Your task to perform on an android device: allow notifications from all sites in the chrome app Image 0: 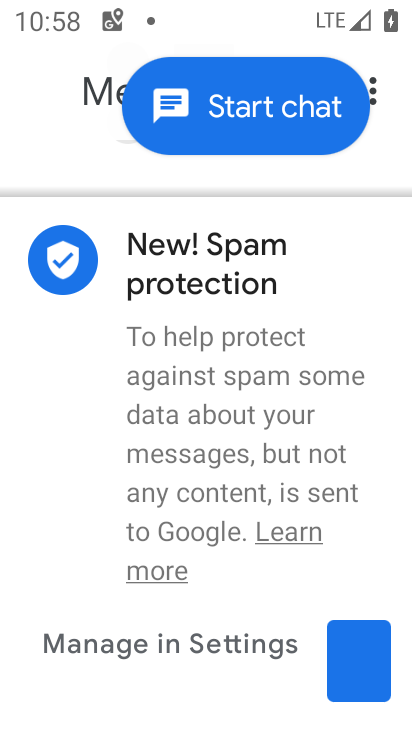
Step 0: press home button
Your task to perform on an android device: allow notifications from all sites in the chrome app Image 1: 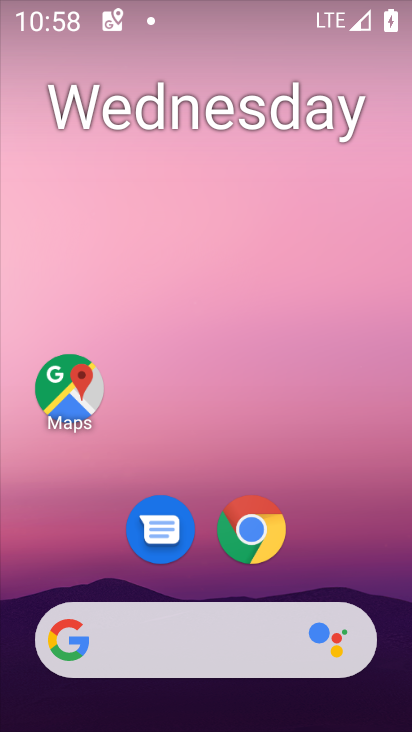
Step 1: click (246, 521)
Your task to perform on an android device: allow notifications from all sites in the chrome app Image 2: 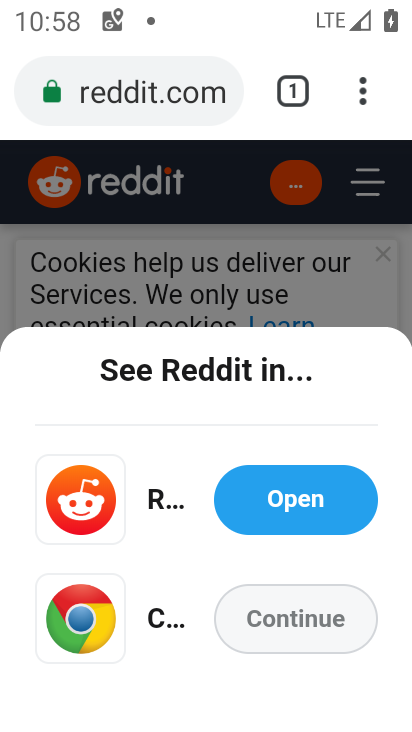
Step 2: click (355, 95)
Your task to perform on an android device: allow notifications from all sites in the chrome app Image 3: 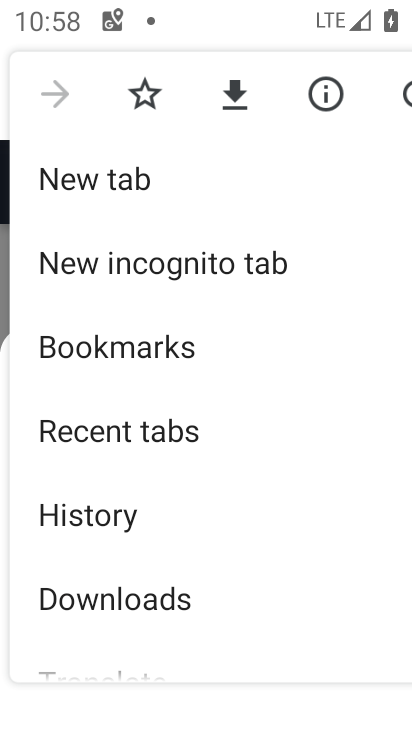
Step 3: drag from (232, 595) to (297, 179)
Your task to perform on an android device: allow notifications from all sites in the chrome app Image 4: 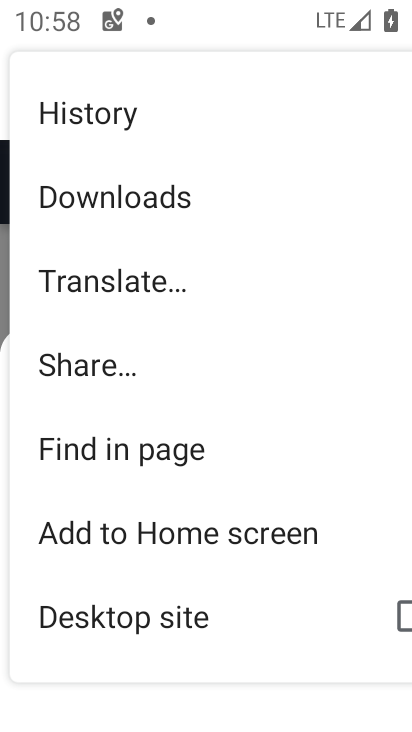
Step 4: drag from (316, 614) to (323, 211)
Your task to perform on an android device: allow notifications from all sites in the chrome app Image 5: 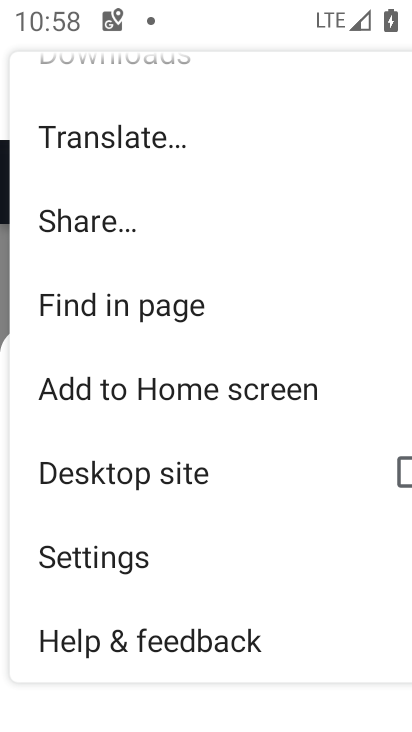
Step 5: click (79, 550)
Your task to perform on an android device: allow notifications from all sites in the chrome app Image 6: 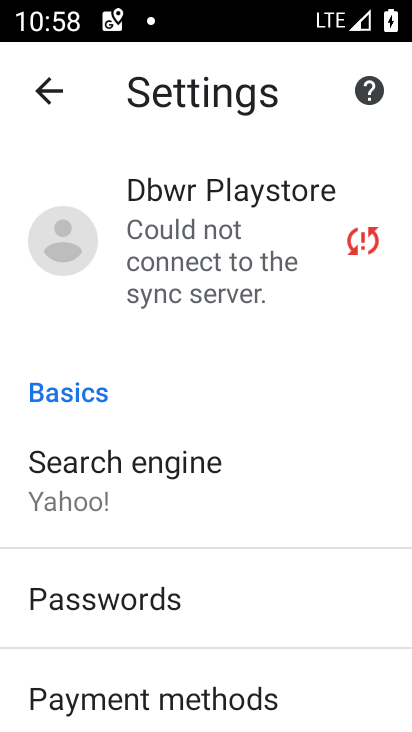
Step 6: drag from (313, 695) to (282, 230)
Your task to perform on an android device: allow notifications from all sites in the chrome app Image 7: 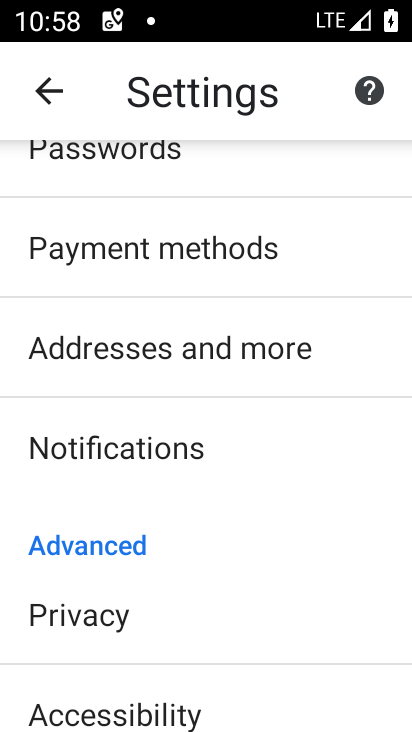
Step 7: drag from (222, 655) to (302, 196)
Your task to perform on an android device: allow notifications from all sites in the chrome app Image 8: 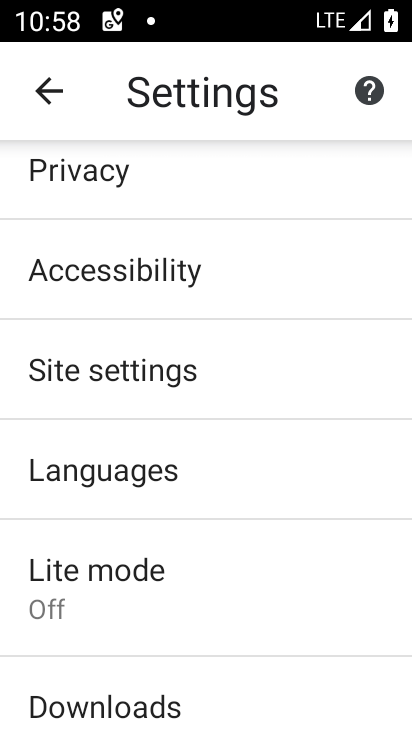
Step 8: click (78, 386)
Your task to perform on an android device: allow notifications from all sites in the chrome app Image 9: 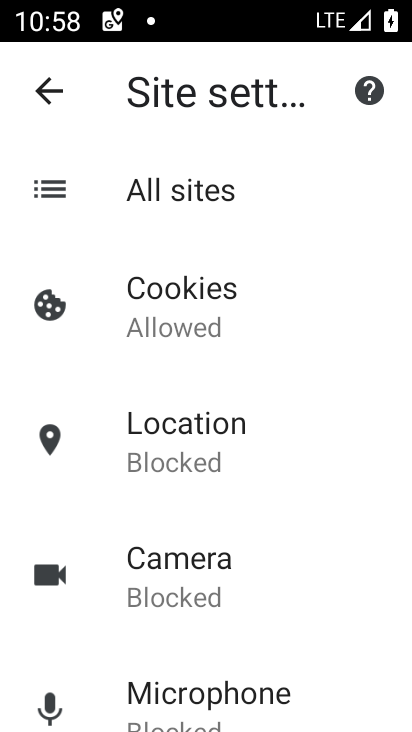
Step 9: drag from (287, 683) to (281, 432)
Your task to perform on an android device: allow notifications from all sites in the chrome app Image 10: 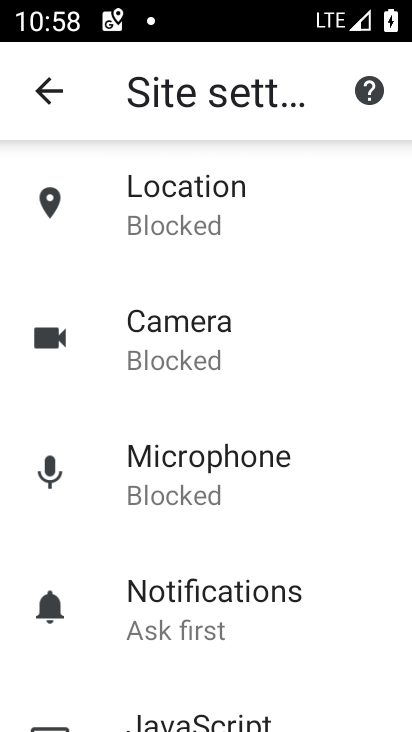
Step 10: click (161, 622)
Your task to perform on an android device: allow notifications from all sites in the chrome app Image 11: 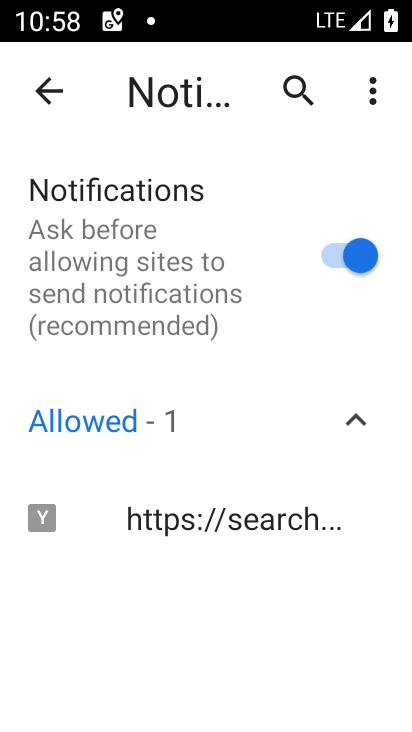
Step 11: task complete